Your task to perform on an android device: check battery use Image 0: 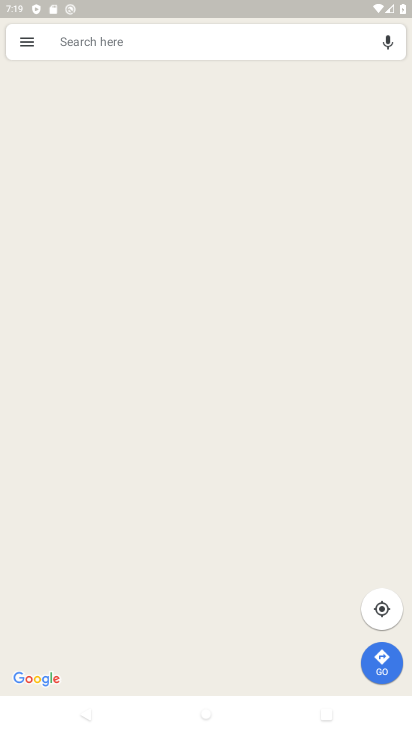
Step 0: click (129, 608)
Your task to perform on an android device: check battery use Image 1: 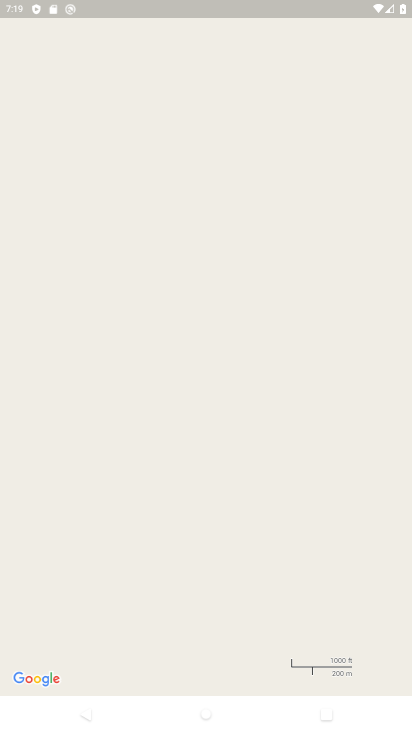
Step 1: press home button
Your task to perform on an android device: check battery use Image 2: 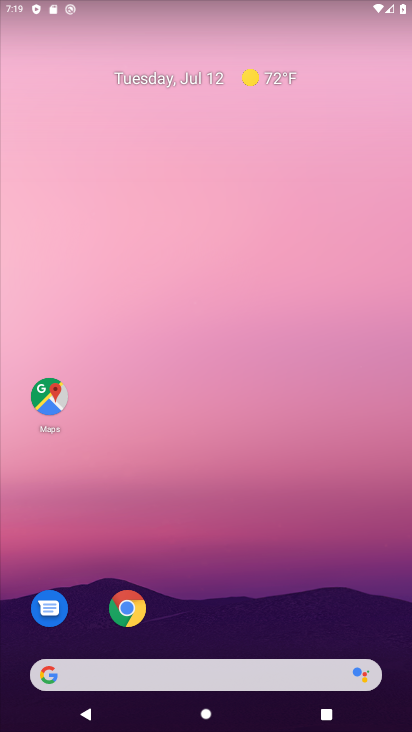
Step 2: drag from (216, 557) to (106, 26)
Your task to perform on an android device: check battery use Image 3: 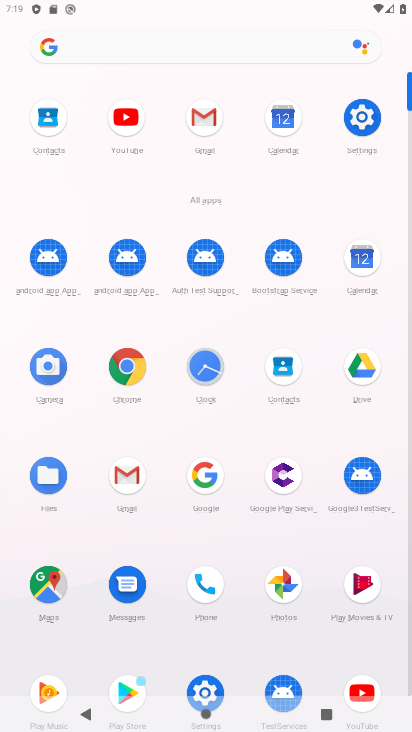
Step 3: click (363, 116)
Your task to perform on an android device: check battery use Image 4: 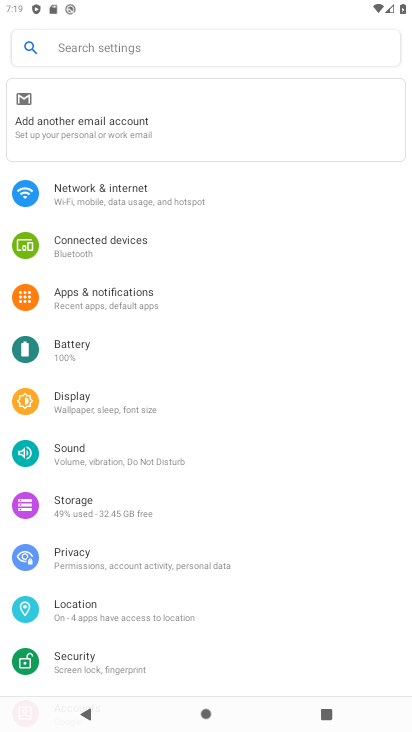
Step 4: click (67, 341)
Your task to perform on an android device: check battery use Image 5: 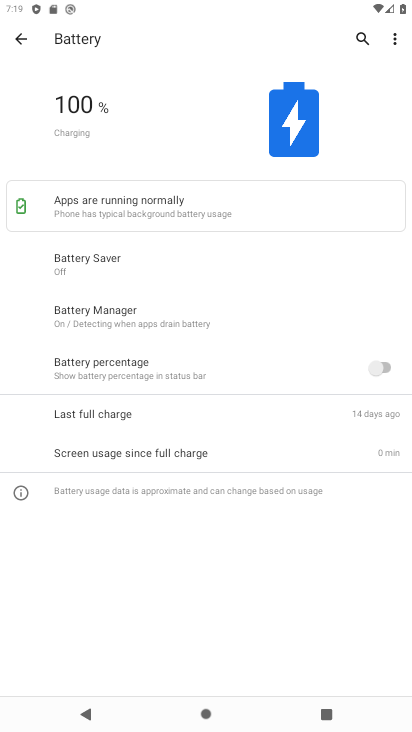
Step 5: task complete